Your task to perform on an android device: visit the assistant section in the google photos Image 0: 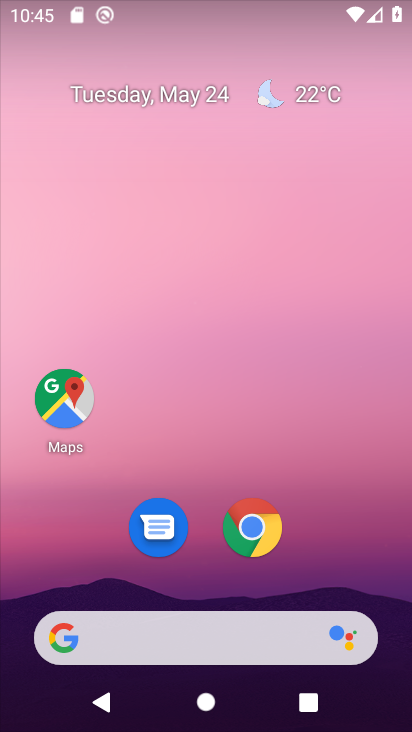
Step 0: press home button
Your task to perform on an android device: visit the assistant section in the google photos Image 1: 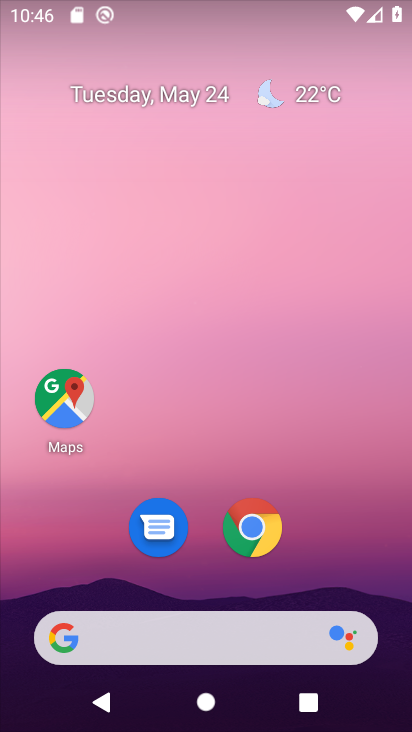
Step 1: drag from (124, 655) to (312, 101)
Your task to perform on an android device: visit the assistant section in the google photos Image 2: 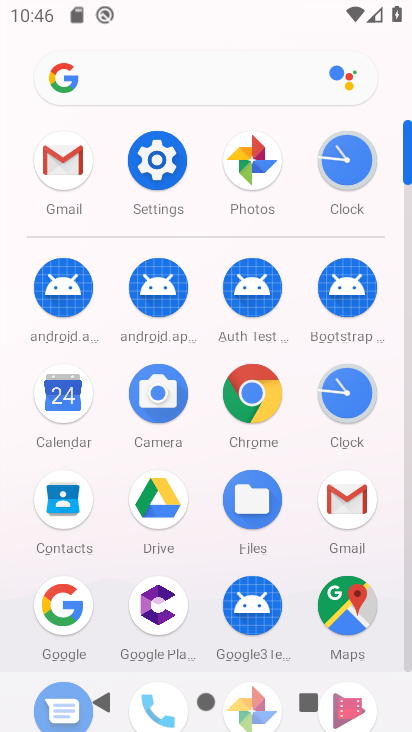
Step 2: drag from (205, 609) to (349, 174)
Your task to perform on an android device: visit the assistant section in the google photos Image 3: 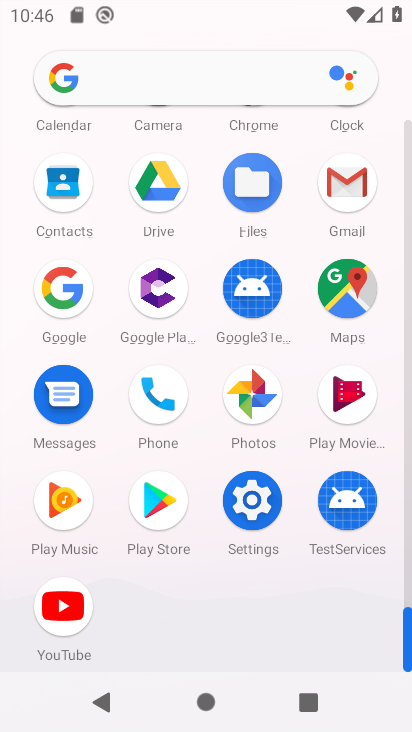
Step 3: click (253, 396)
Your task to perform on an android device: visit the assistant section in the google photos Image 4: 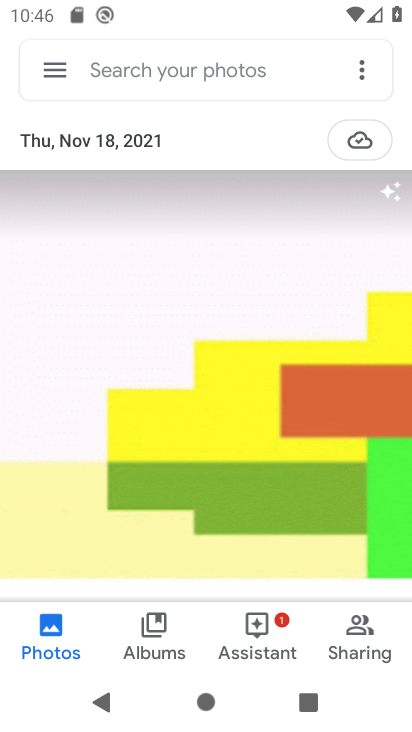
Step 4: click (253, 644)
Your task to perform on an android device: visit the assistant section in the google photos Image 5: 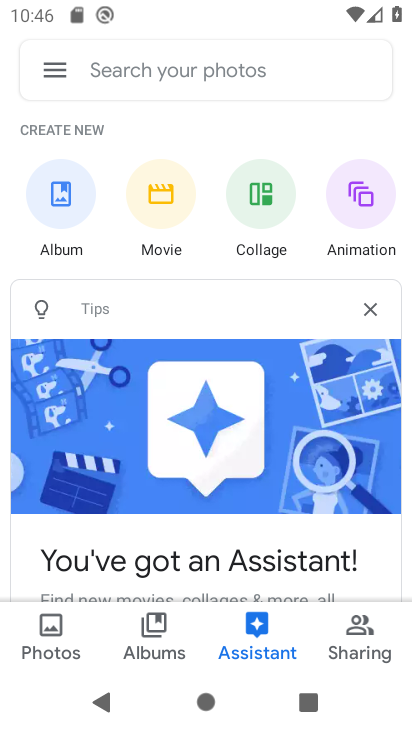
Step 5: task complete